Your task to perform on an android device: Open ESPN.com Image 0: 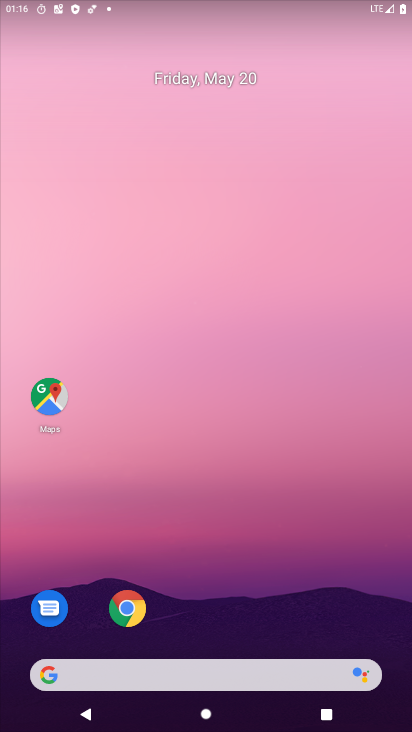
Step 0: drag from (320, 606) to (316, 219)
Your task to perform on an android device: Open ESPN.com Image 1: 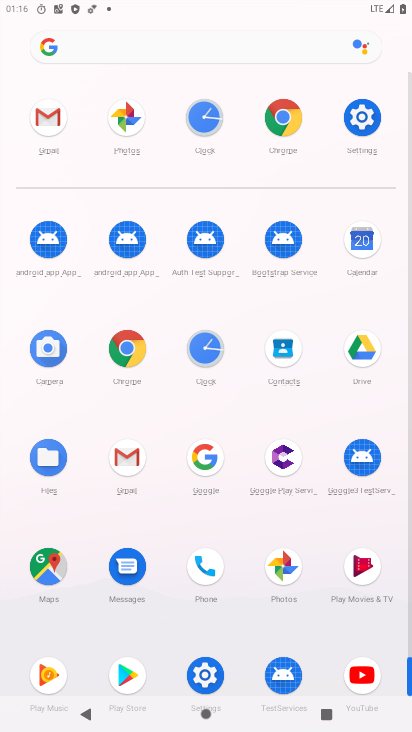
Step 1: click (284, 128)
Your task to perform on an android device: Open ESPN.com Image 2: 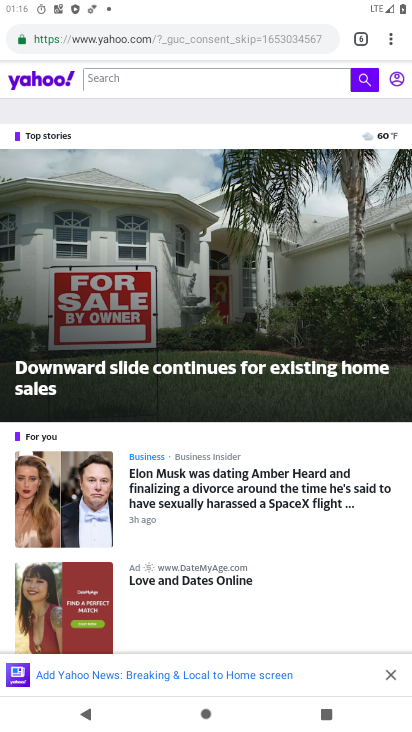
Step 2: click (153, 39)
Your task to perform on an android device: Open ESPN.com Image 3: 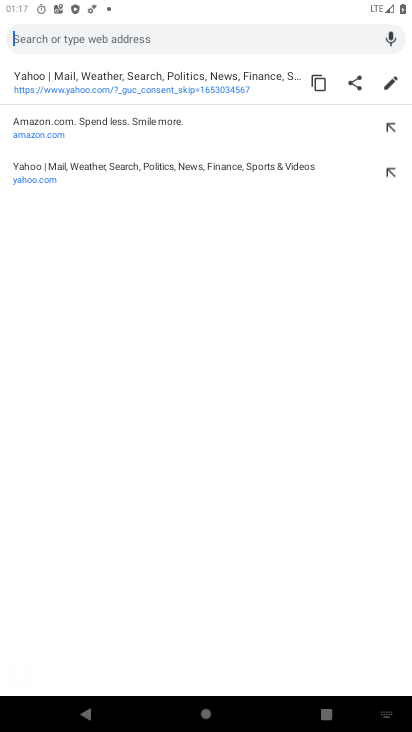
Step 3: type "espn.com"
Your task to perform on an android device: Open ESPN.com Image 4: 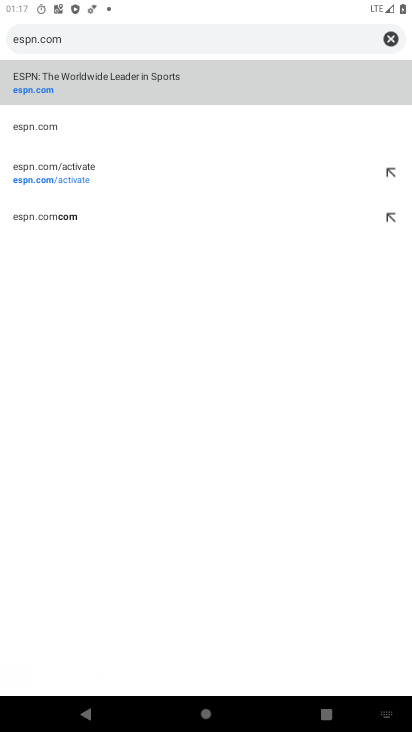
Step 4: click (137, 84)
Your task to perform on an android device: Open ESPN.com Image 5: 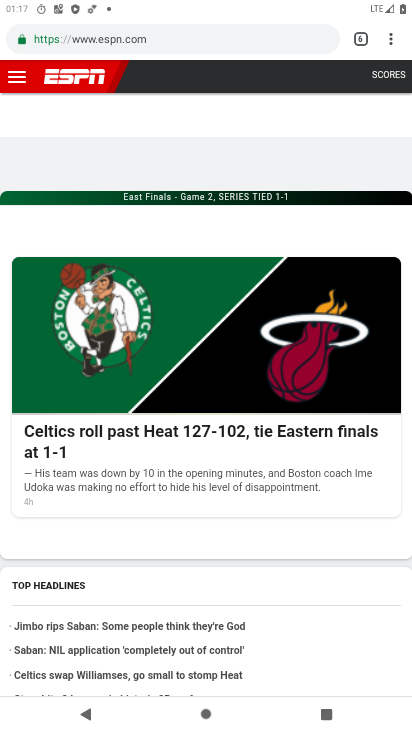
Step 5: task complete